Your task to perform on an android device: turn off priority inbox in the gmail app Image 0: 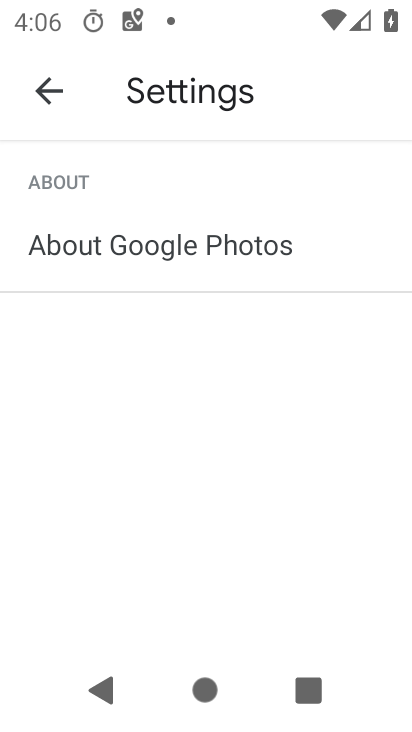
Step 0: press home button
Your task to perform on an android device: turn off priority inbox in the gmail app Image 1: 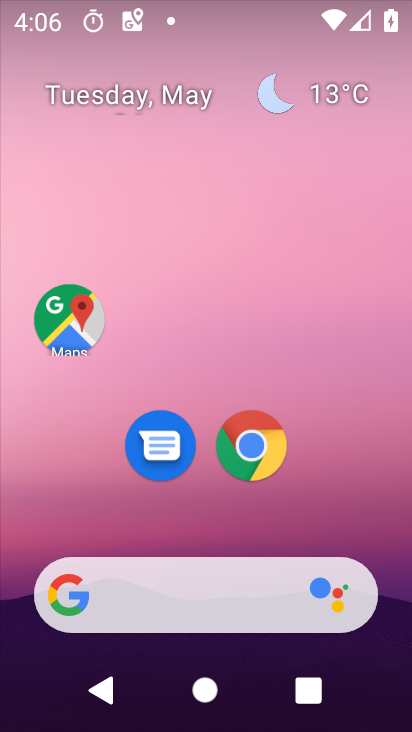
Step 1: drag from (206, 531) to (223, 28)
Your task to perform on an android device: turn off priority inbox in the gmail app Image 2: 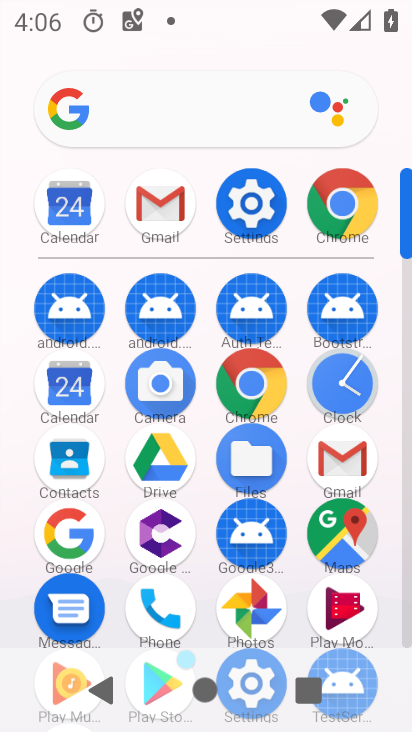
Step 2: click (339, 449)
Your task to perform on an android device: turn off priority inbox in the gmail app Image 3: 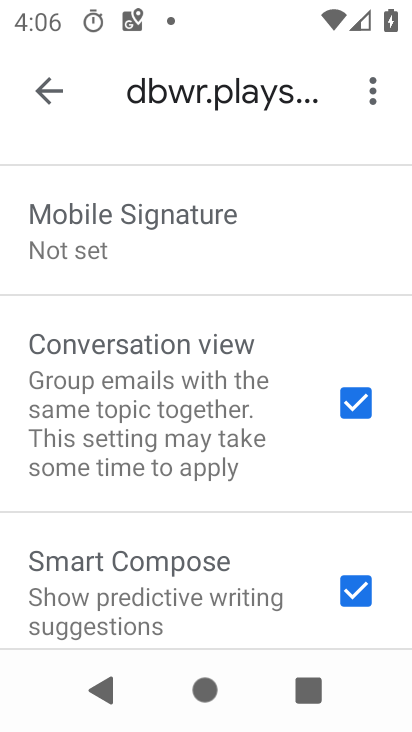
Step 3: click (39, 108)
Your task to perform on an android device: turn off priority inbox in the gmail app Image 4: 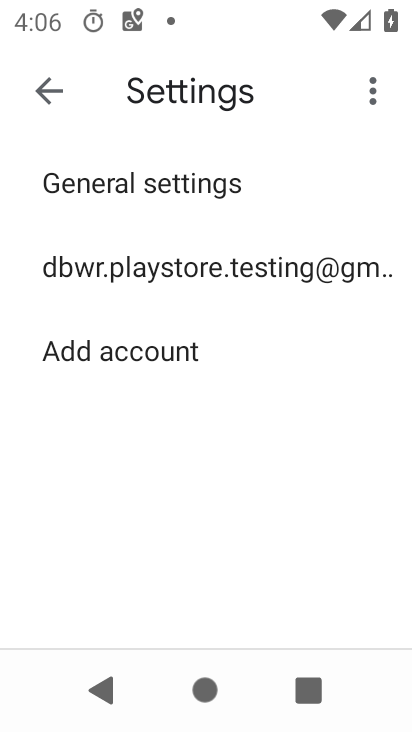
Step 4: click (198, 260)
Your task to perform on an android device: turn off priority inbox in the gmail app Image 5: 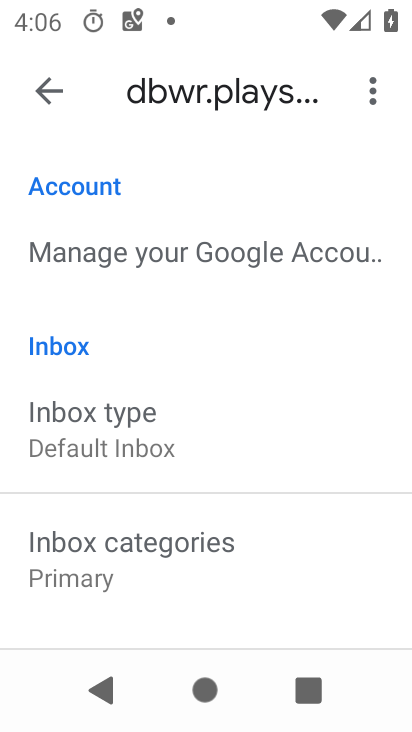
Step 5: click (206, 451)
Your task to perform on an android device: turn off priority inbox in the gmail app Image 6: 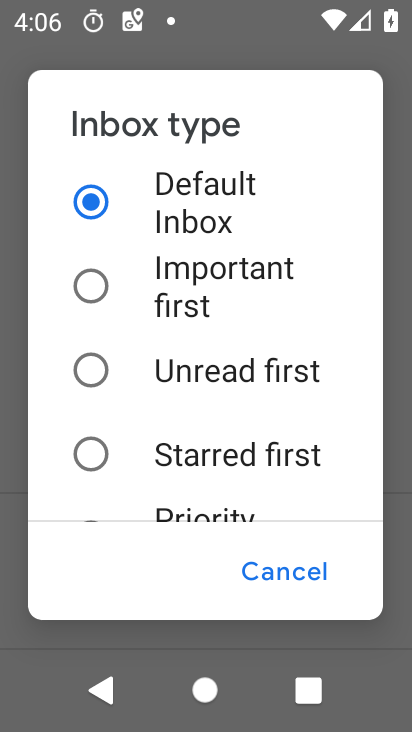
Step 6: click (85, 460)
Your task to perform on an android device: turn off priority inbox in the gmail app Image 7: 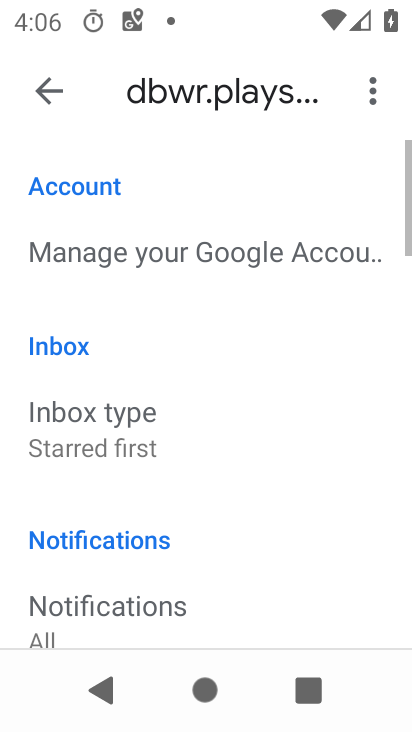
Step 7: task complete